Your task to perform on an android device: toggle data saver in the chrome app Image 0: 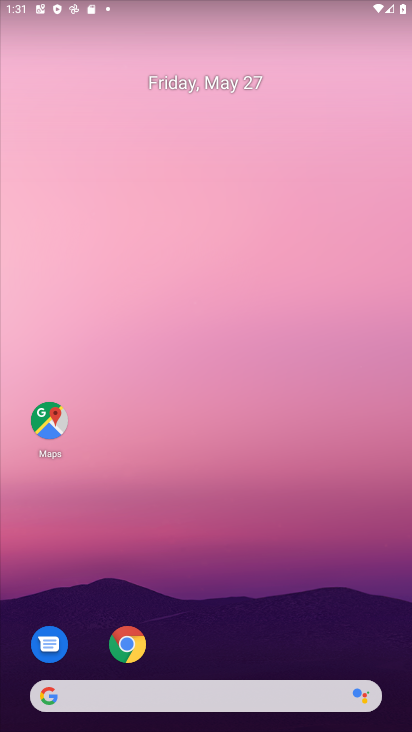
Step 0: drag from (330, 628) to (264, 97)
Your task to perform on an android device: toggle data saver in the chrome app Image 1: 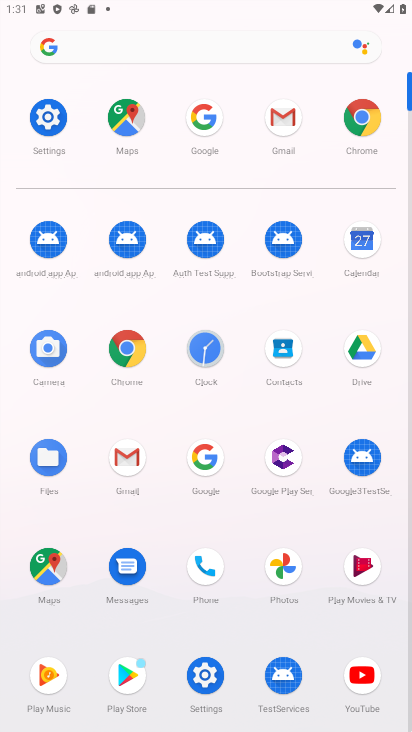
Step 1: click (345, 103)
Your task to perform on an android device: toggle data saver in the chrome app Image 2: 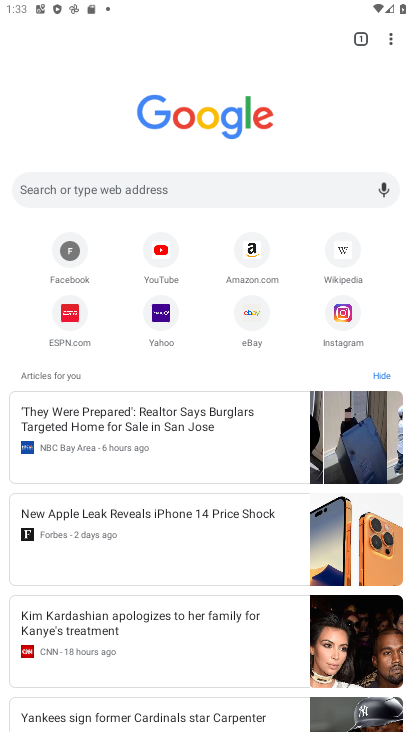
Step 2: click (396, 33)
Your task to perform on an android device: toggle data saver in the chrome app Image 3: 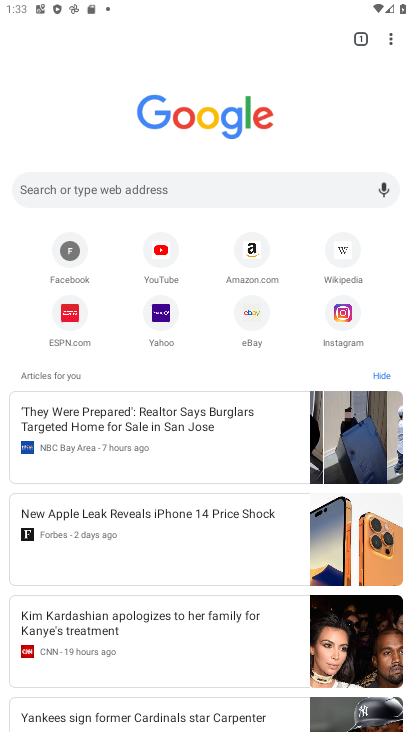
Step 3: click (392, 30)
Your task to perform on an android device: toggle data saver in the chrome app Image 4: 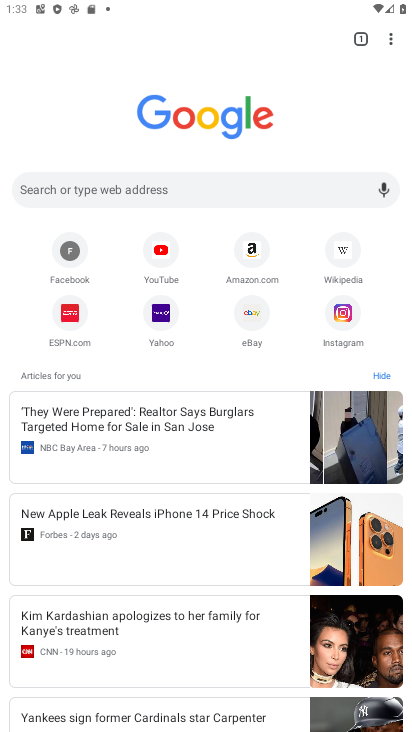
Step 4: click (393, 30)
Your task to perform on an android device: toggle data saver in the chrome app Image 5: 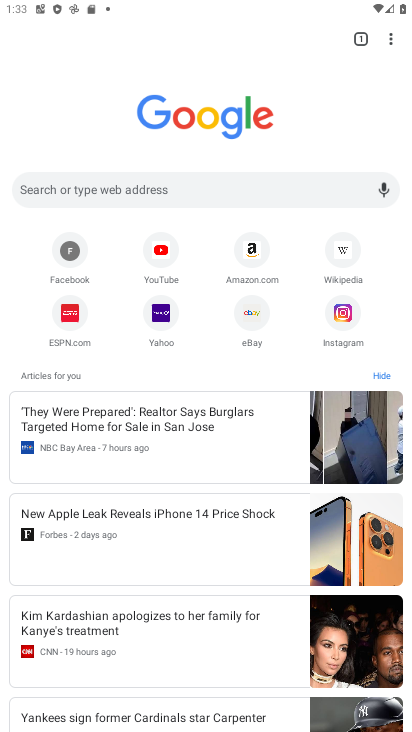
Step 5: click (390, 37)
Your task to perform on an android device: toggle data saver in the chrome app Image 6: 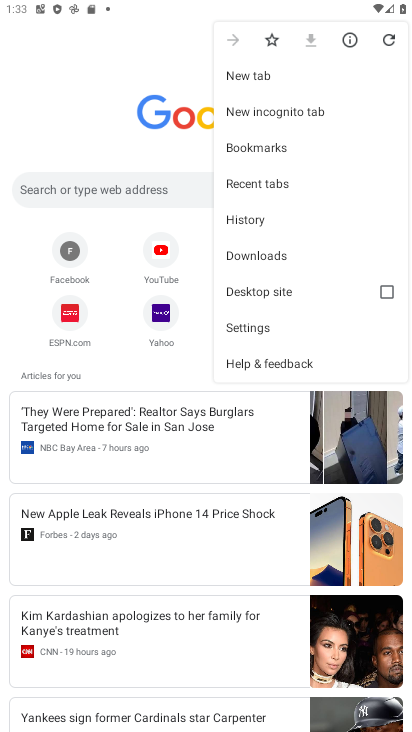
Step 6: click (281, 334)
Your task to perform on an android device: toggle data saver in the chrome app Image 7: 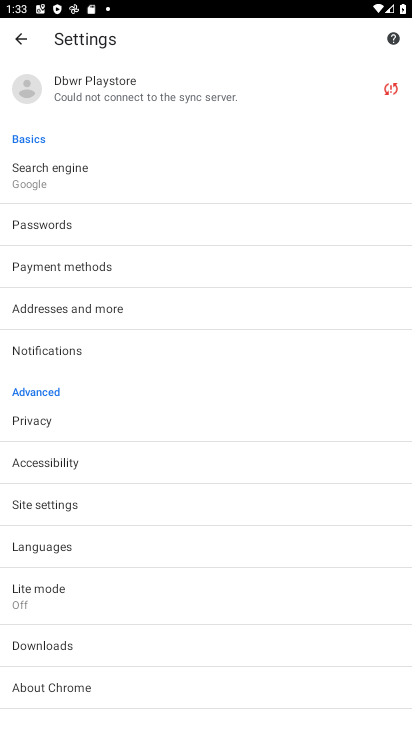
Step 7: click (85, 588)
Your task to perform on an android device: toggle data saver in the chrome app Image 8: 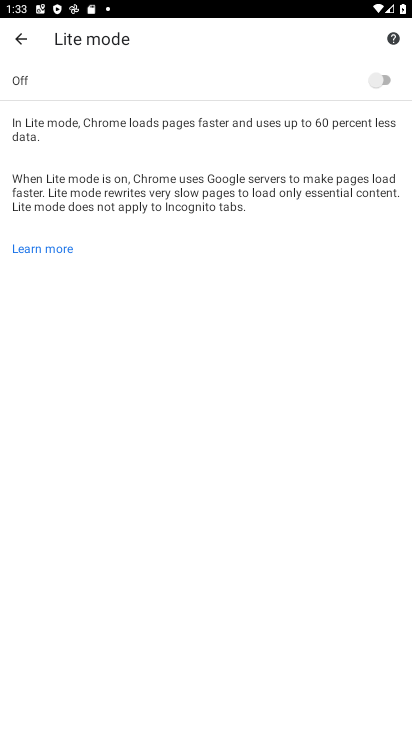
Step 8: click (385, 79)
Your task to perform on an android device: toggle data saver in the chrome app Image 9: 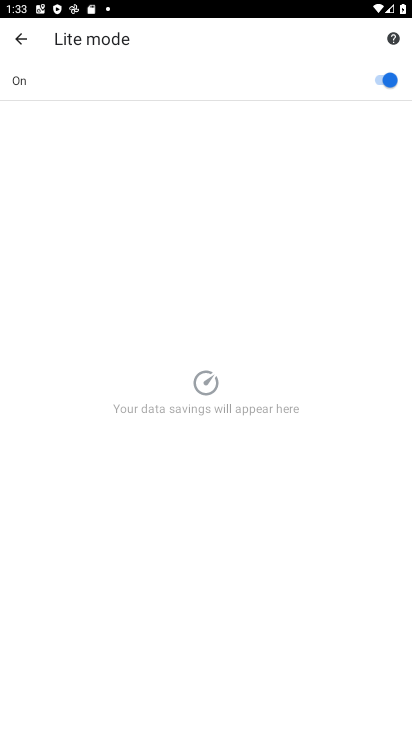
Step 9: task complete